Your task to perform on an android device: What is the news today? Image 0: 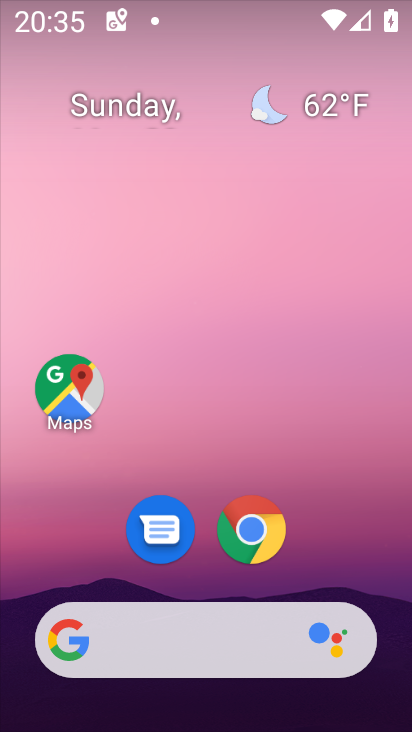
Step 0: drag from (4, 254) to (366, 475)
Your task to perform on an android device: What is the news today? Image 1: 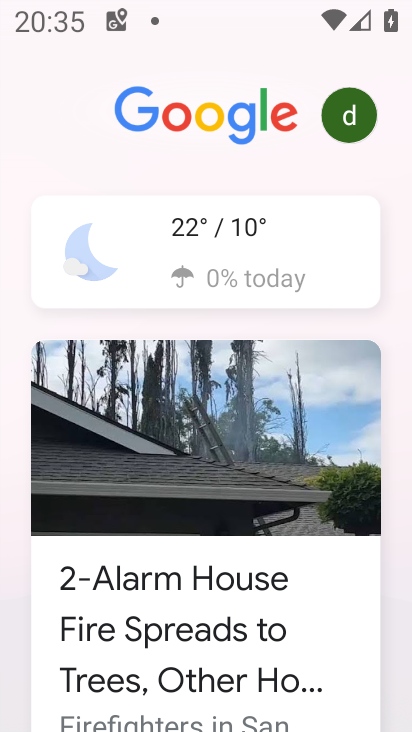
Step 1: drag from (153, 578) to (154, 236)
Your task to perform on an android device: What is the news today? Image 2: 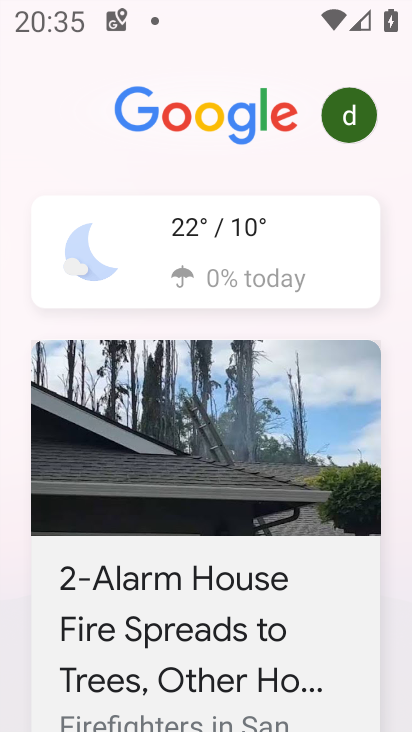
Step 2: drag from (156, 486) to (168, 179)
Your task to perform on an android device: What is the news today? Image 3: 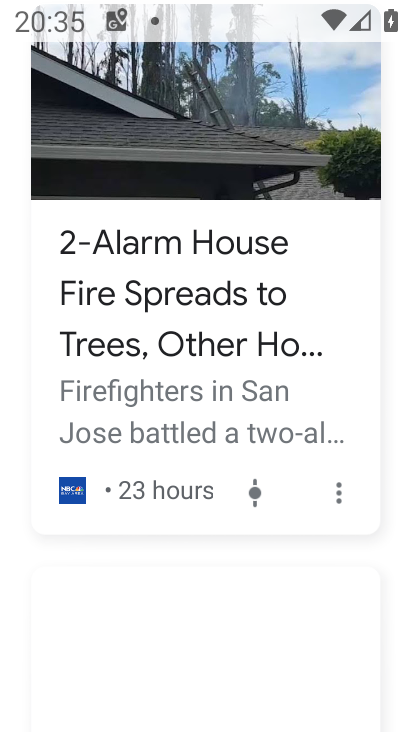
Step 3: drag from (238, 505) to (237, 126)
Your task to perform on an android device: What is the news today? Image 4: 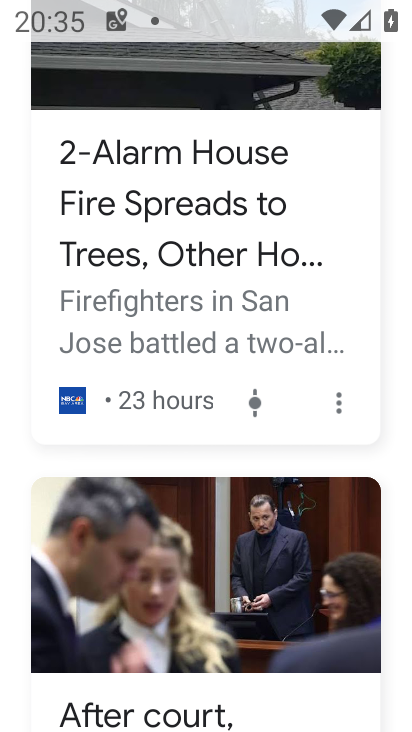
Step 4: drag from (187, 432) to (187, 139)
Your task to perform on an android device: What is the news today? Image 5: 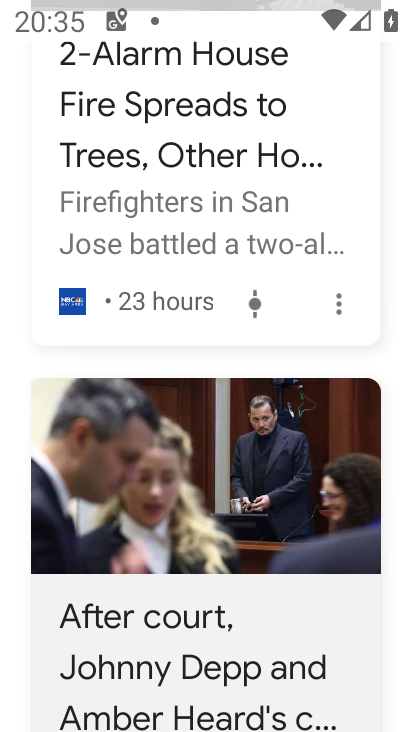
Step 5: drag from (145, 504) to (153, 167)
Your task to perform on an android device: What is the news today? Image 6: 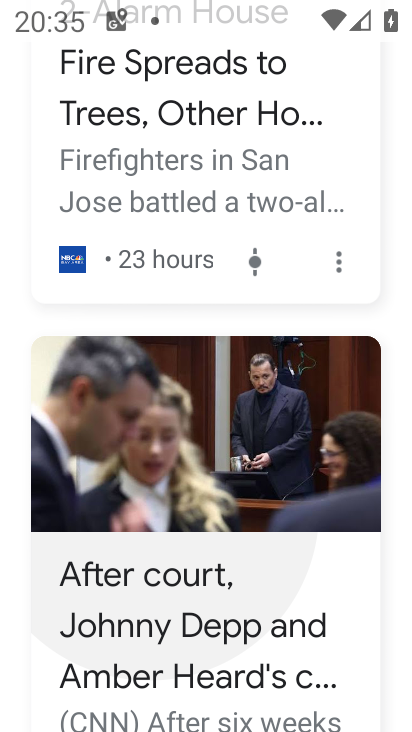
Step 6: drag from (156, 422) to (167, 104)
Your task to perform on an android device: What is the news today? Image 7: 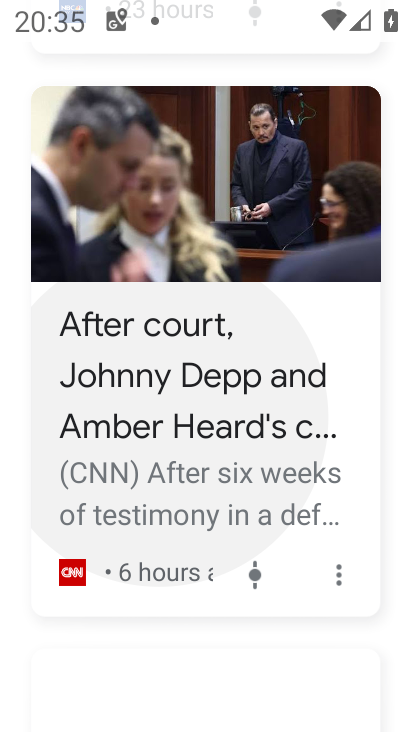
Step 7: drag from (197, 493) to (214, 166)
Your task to perform on an android device: What is the news today? Image 8: 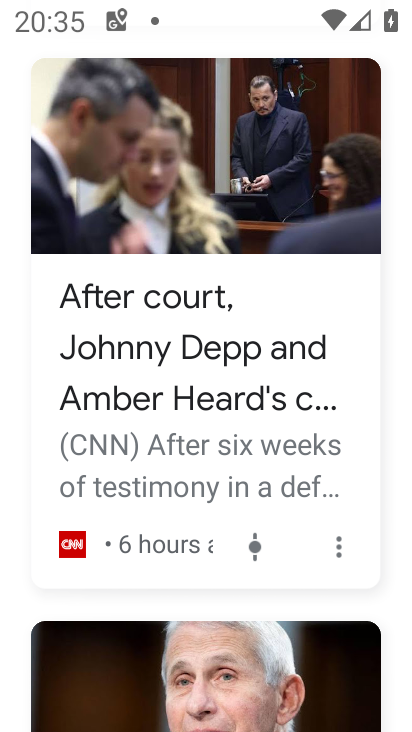
Step 8: drag from (184, 478) to (184, 149)
Your task to perform on an android device: What is the news today? Image 9: 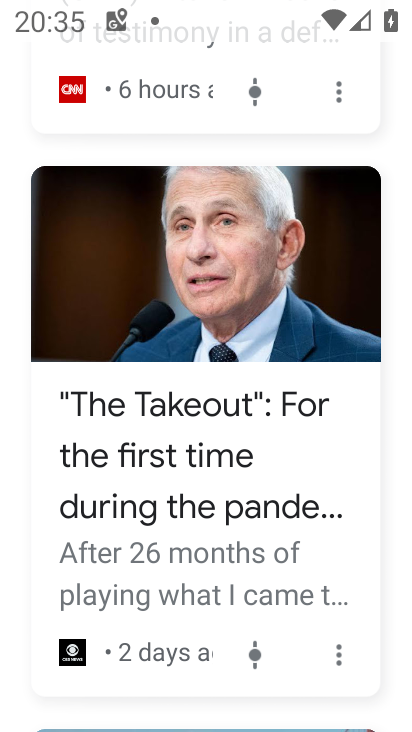
Step 9: click (175, 15)
Your task to perform on an android device: What is the news today? Image 10: 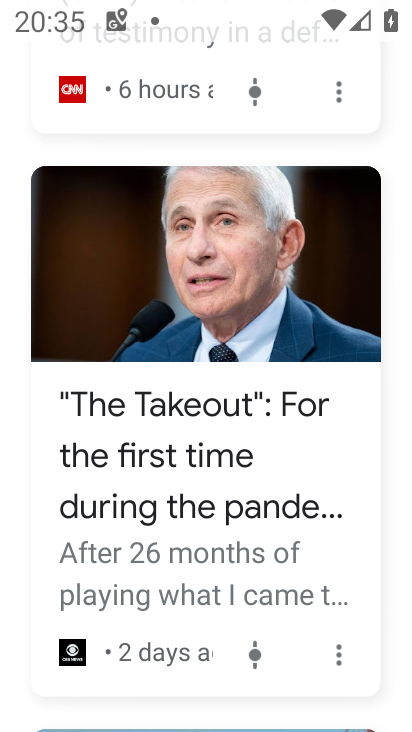
Step 10: drag from (125, 249) to (111, 97)
Your task to perform on an android device: What is the news today? Image 11: 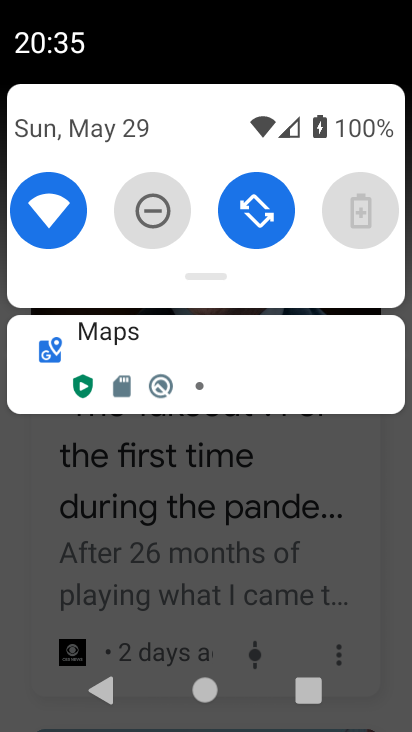
Step 11: drag from (148, 404) to (121, 119)
Your task to perform on an android device: What is the news today? Image 12: 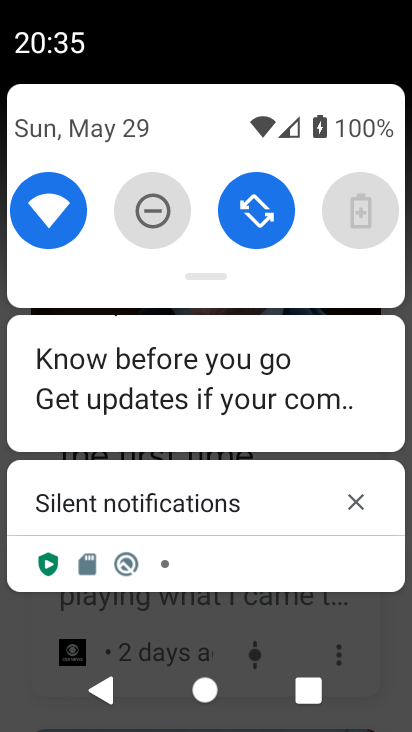
Step 12: drag from (205, 420) to (191, 164)
Your task to perform on an android device: What is the news today? Image 13: 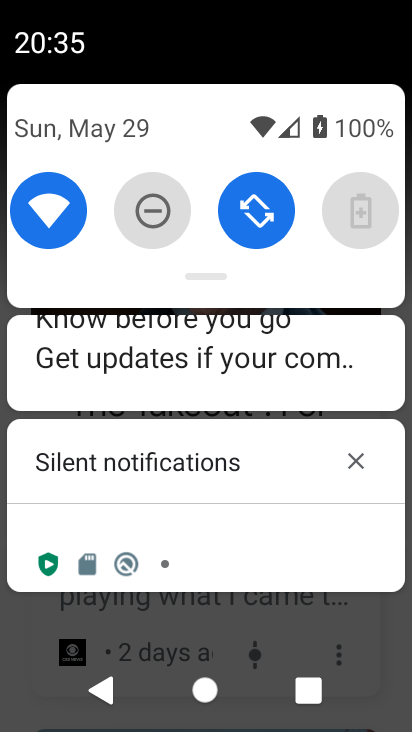
Step 13: click (375, 629)
Your task to perform on an android device: What is the news today? Image 14: 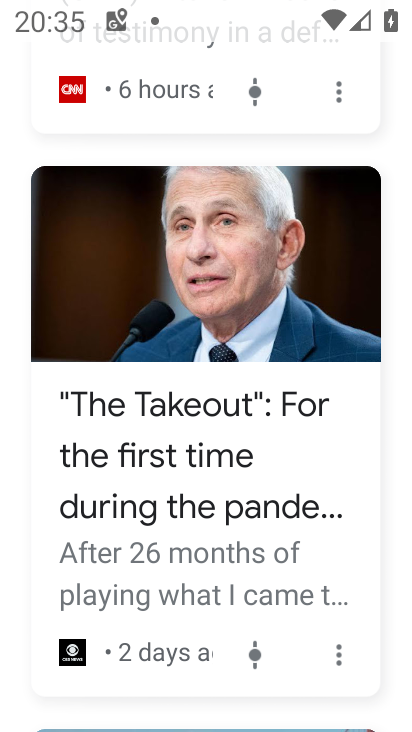
Step 14: task complete